Your task to perform on an android device: add a contact in the contacts app Image 0: 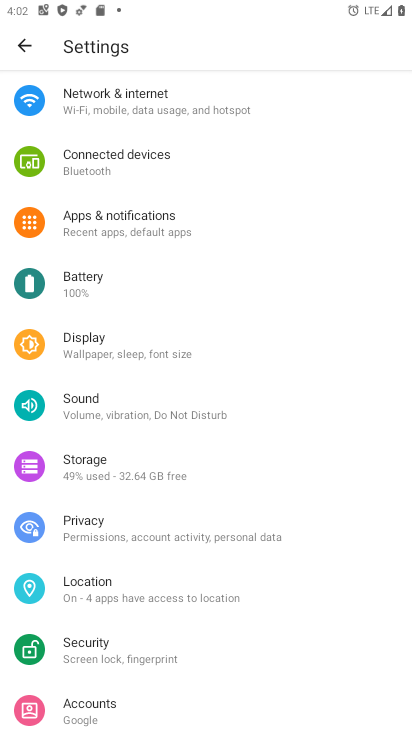
Step 0: press home button
Your task to perform on an android device: add a contact in the contacts app Image 1: 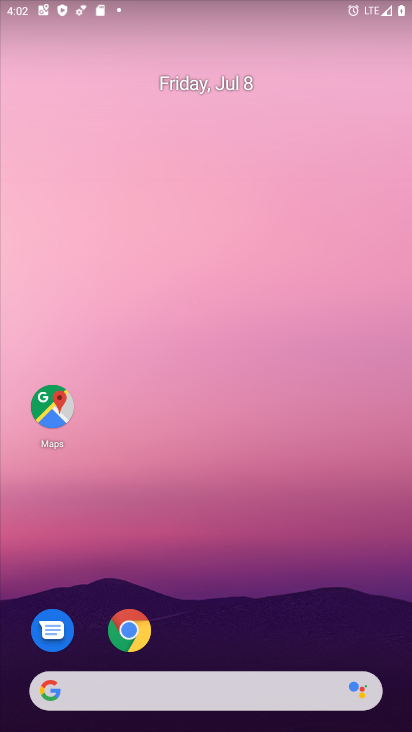
Step 1: drag from (226, 632) to (226, 225)
Your task to perform on an android device: add a contact in the contacts app Image 2: 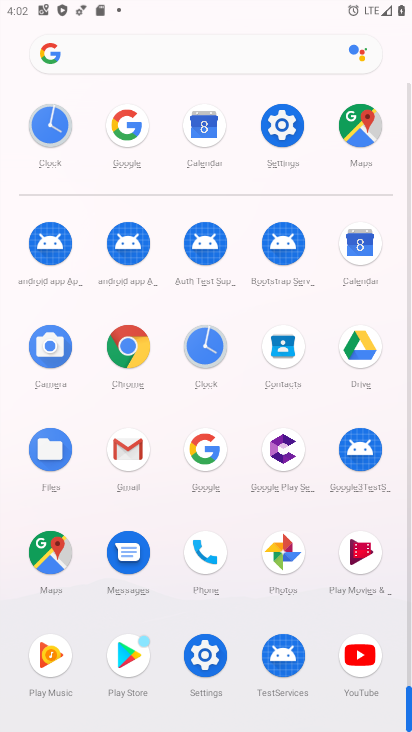
Step 2: click (283, 348)
Your task to perform on an android device: add a contact in the contacts app Image 3: 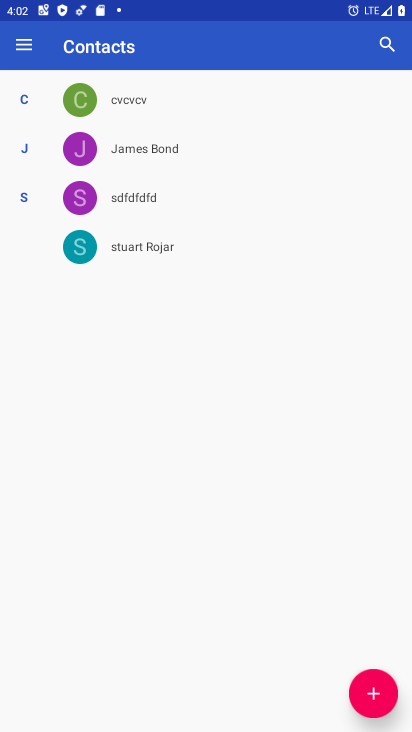
Step 3: click (368, 692)
Your task to perform on an android device: add a contact in the contacts app Image 4: 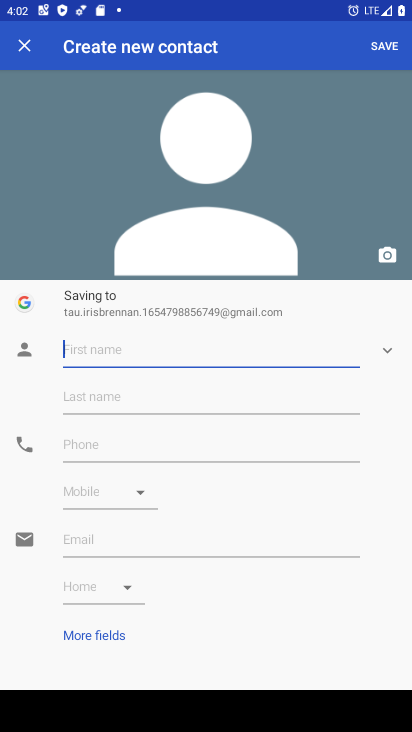
Step 4: type "Jimmy"
Your task to perform on an android device: add a contact in the contacts app Image 5: 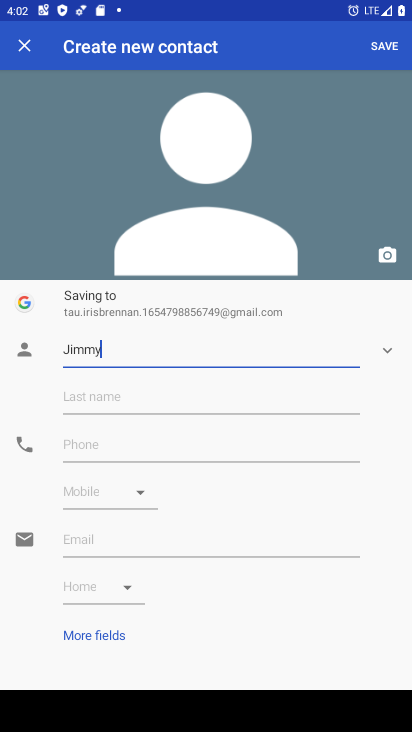
Step 5: click (268, 408)
Your task to perform on an android device: add a contact in the contacts app Image 6: 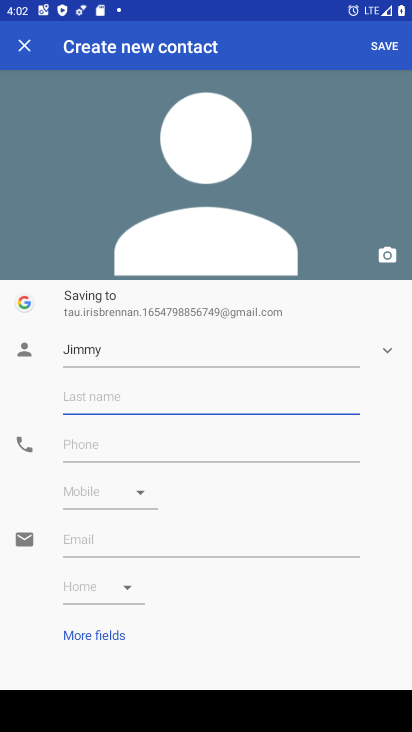
Step 6: type "Shergil"
Your task to perform on an android device: add a contact in the contacts app Image 7: 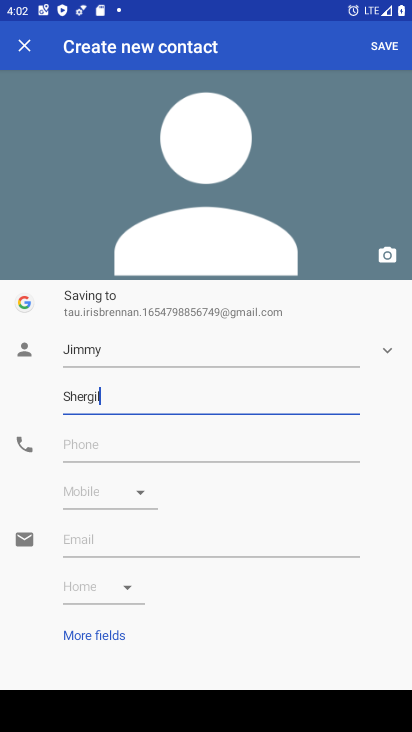
Step 7: click (145, 456)
Your task to perform on an android device: add a contact in the contacts app Image 8: 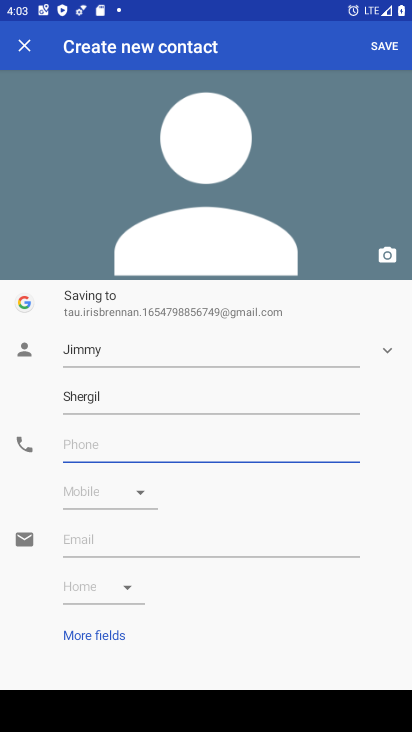
Step 8: type "098253427651"
Your task to perform on an android device: add a contact in the contacts app Image 9: 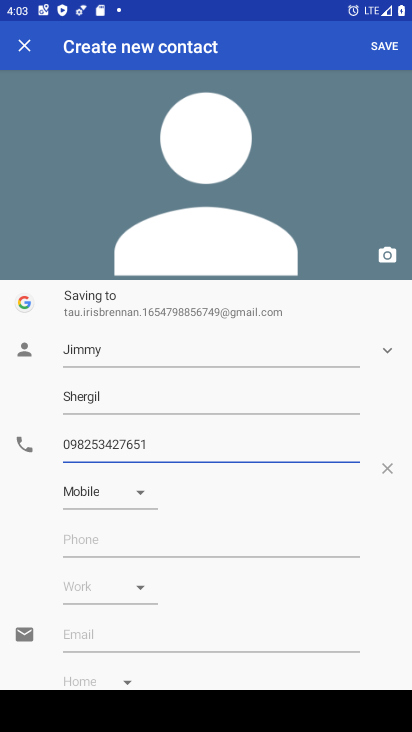
Step 9: click (380, 49)
Your task to perform on an android device: add a contact in the contacts app Image 10: 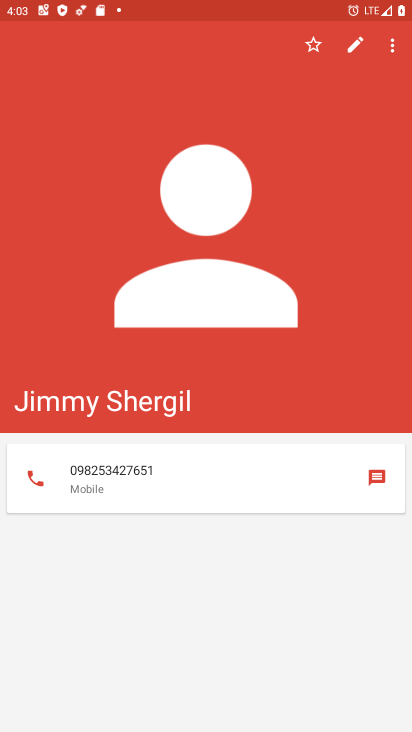
Step 10: task complete